Your task to perform on an android device: change the clock display to show seconds Image 0: 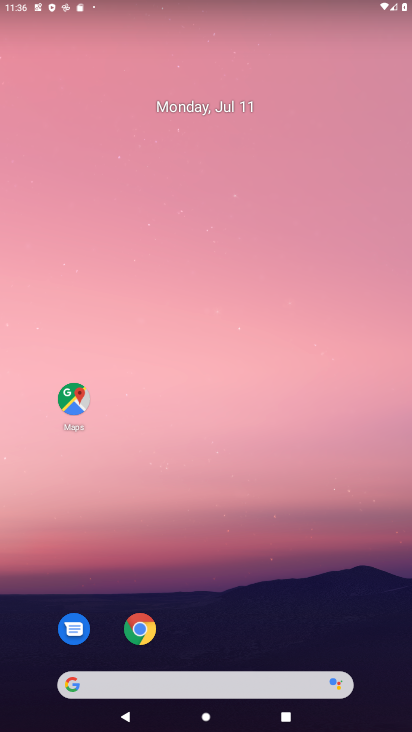
Step 0: drag from (237, 628) to (185, 72)
Your task to perform on an android device: change the clock display to show seconds Image 1: 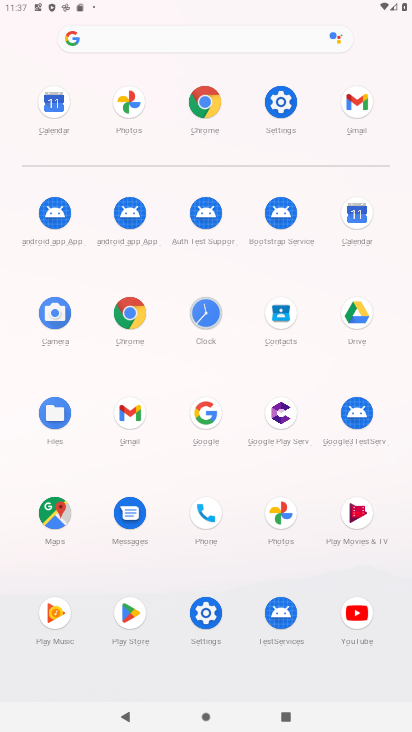
Step 1: click (196, 303)
Your task to perform on an android device: change the clock display to show seconds Image 2: 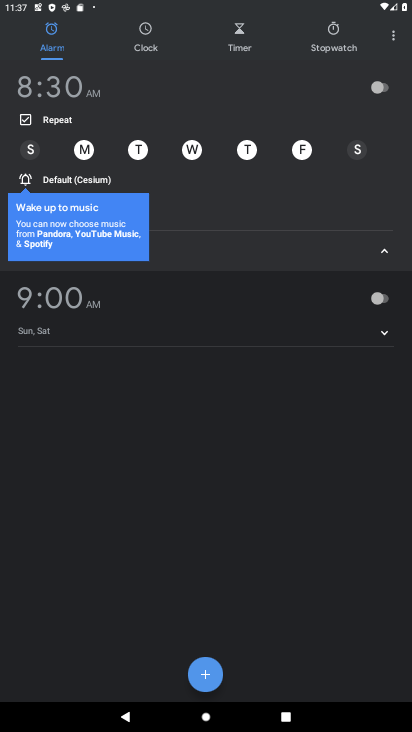
Step 2: click (395, 34)
Your task to perform on an android device: change the clock display to show seconds Image 3: 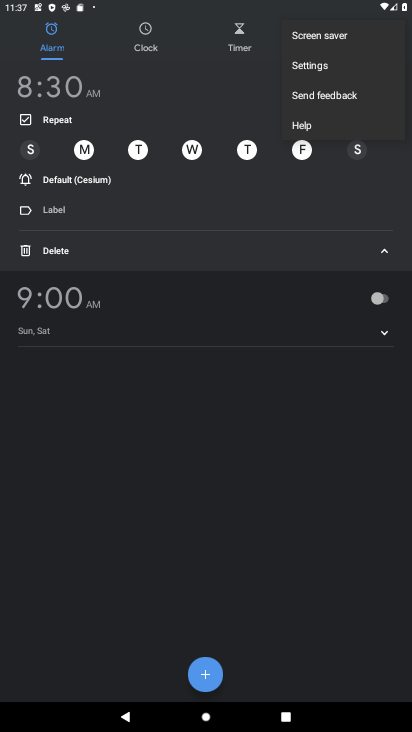
Step 3: click (323, 73)
Your task to perform on an android device: change the clock display to show seconds Image 4: 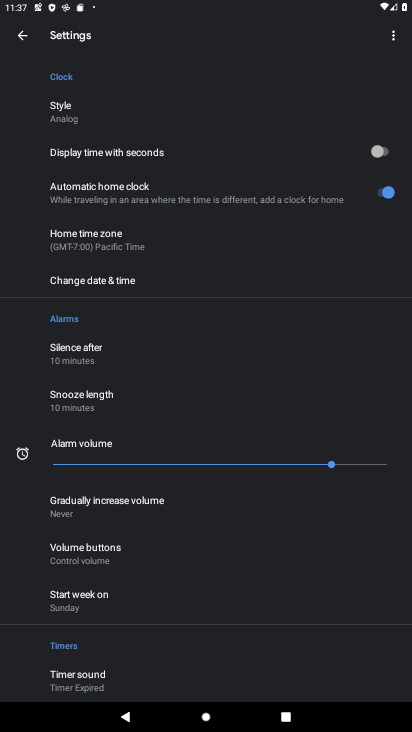
Step 4: click (135, 273)
Your task to perform on an android device: change the clock display to show seconds Image 5: 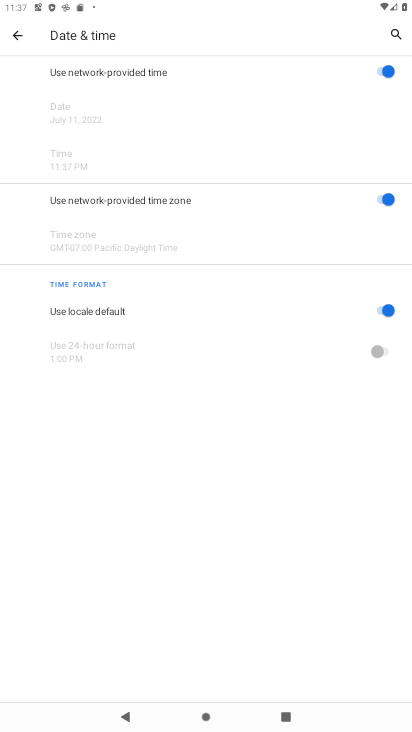
Step 5: click (18, 40)
Your task to perform on an android device: change the clock display to show seconds Image 6: 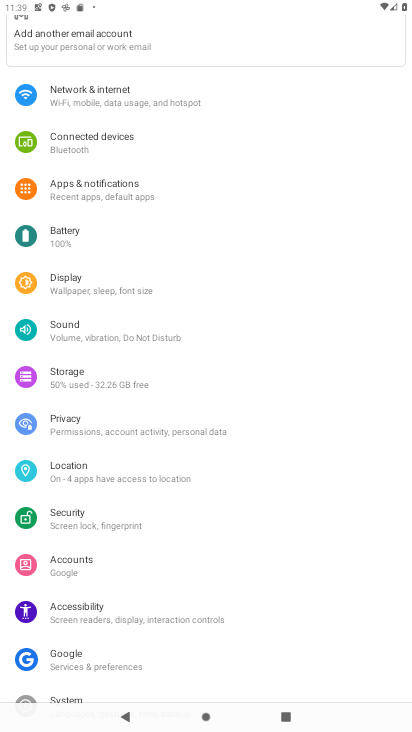
Step 6: press home button
Your task to perform on an android device: change the clock display to show seconds Image 7: 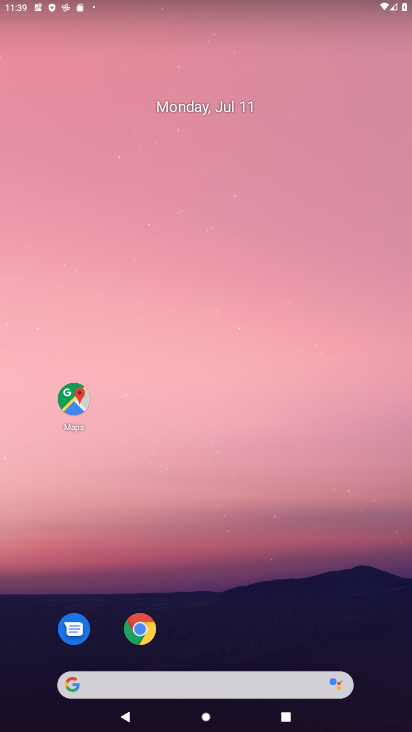
Step 7: drag from (265, 598) to (284, 189)
Your task to perform on an android device: change the clock display to show seconds Image 8: 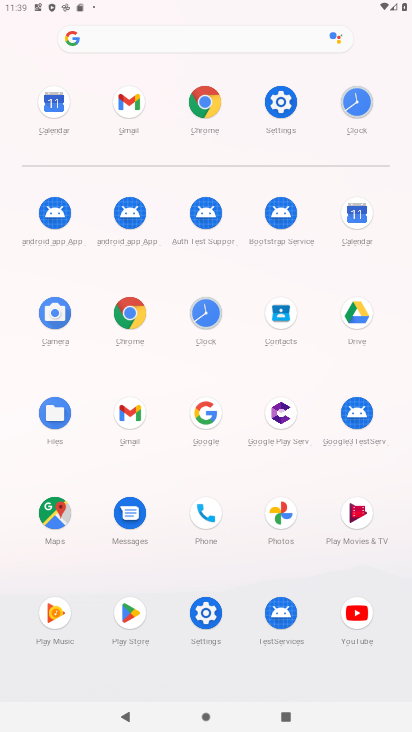
Step 8: click (212, 327)
Your task to perform on an android device: change the clock display to show seconds Image 9: 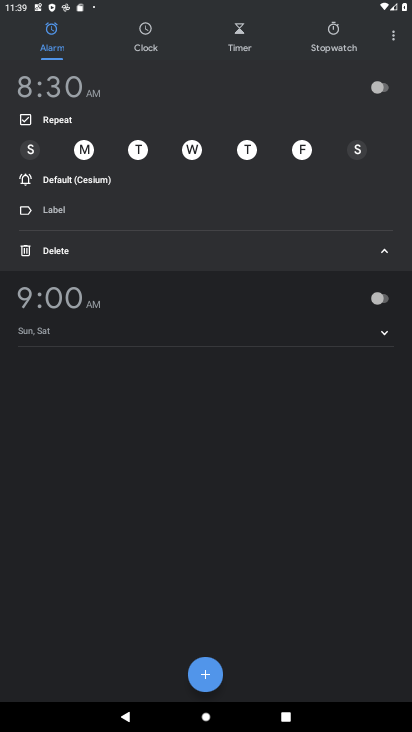
Step 9: click (389, 34)
Your task to perform on an android device: change the clock display to show seconds Image 10: 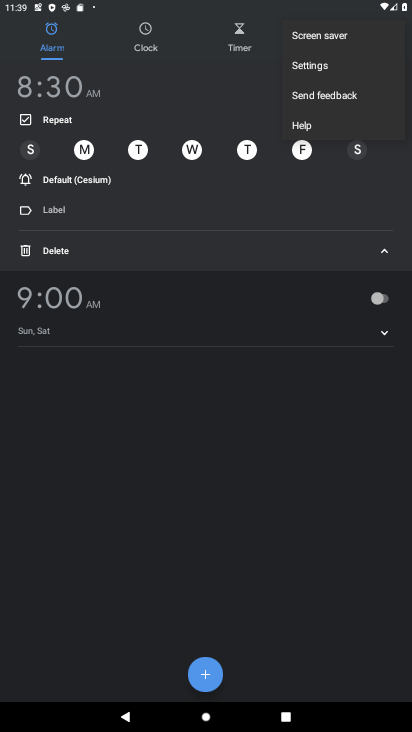
Step 10: click (297, 70)
Your task to perform on an android device: change the clock display to show seconds Image 11: 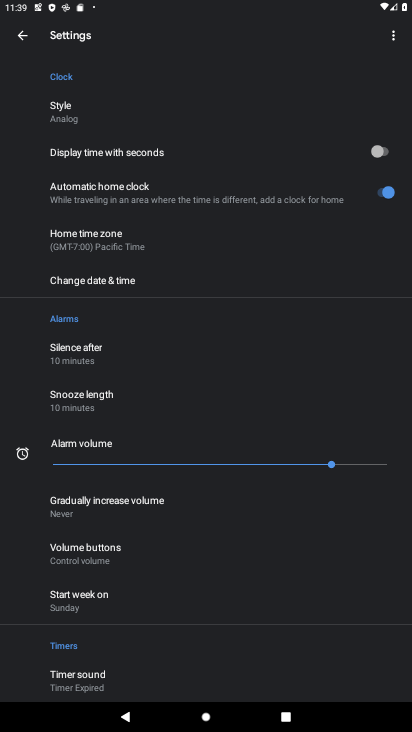
Step 11: click (91, 111)
Your task to perform on an android device: change the clock display to show seconds Image 12: 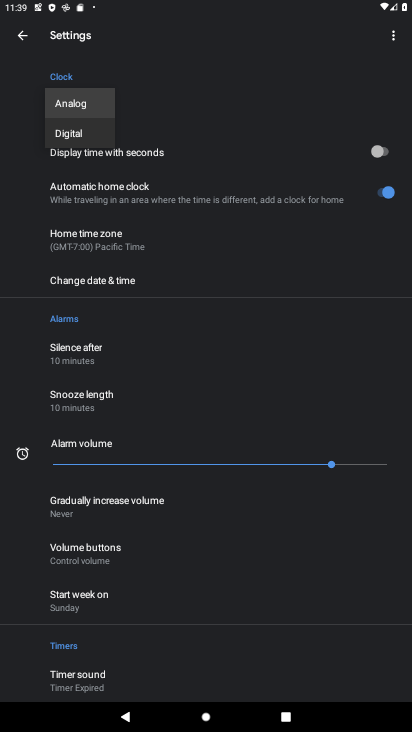
Step 12: click (367, 141)
Your task to perform on an android device: change the clock display to show seconds Image 13: 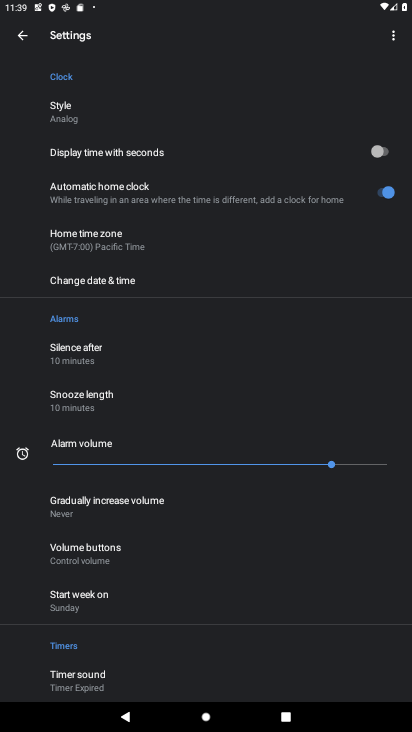
Step 13: click (367, 145)
Your task to perform on an android device: change the clock display to show seconds Image 14: 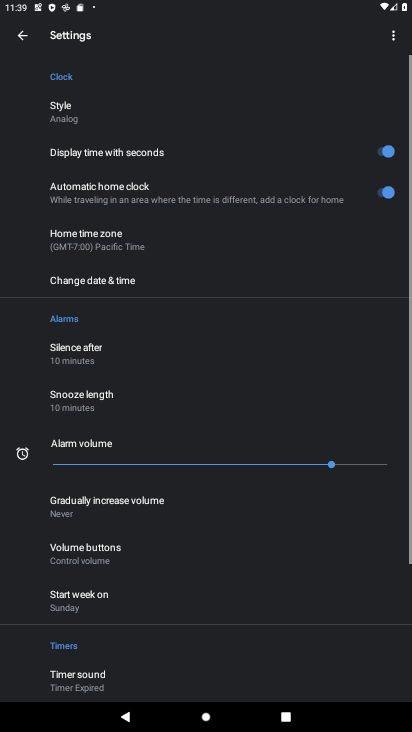
Step 14: task complete